Your task to perform on an android device: Search for Italian restaurants on Maps Image 0: 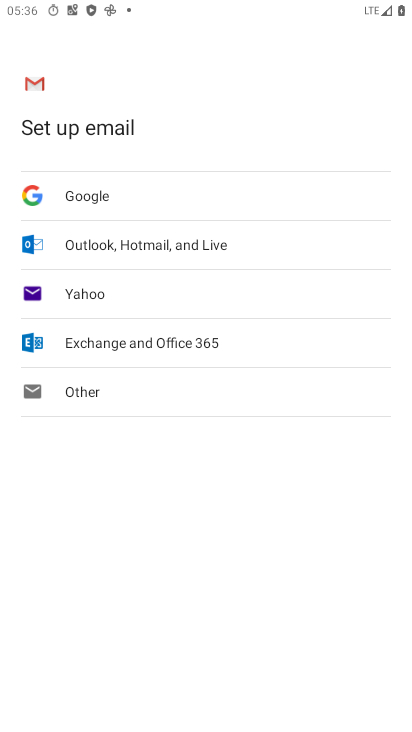
Step 0: press home button
Your task to perform on an android device: Search for Italian restaurants on Maps Image 1: 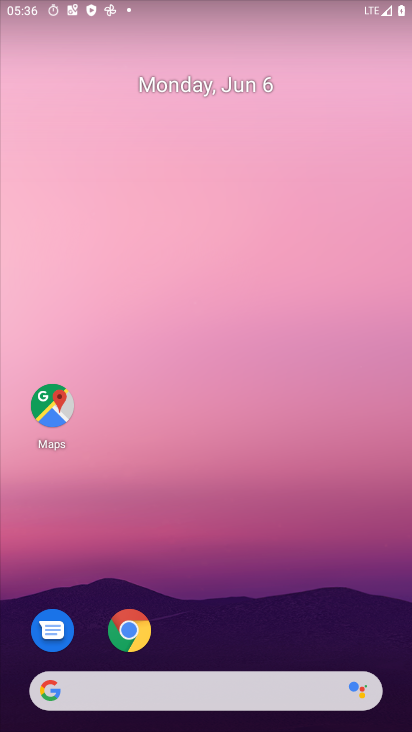
Step 1: click (55, 399)
Your task to perform on an android device: Search for Italian restaurants on Maps Image 2: 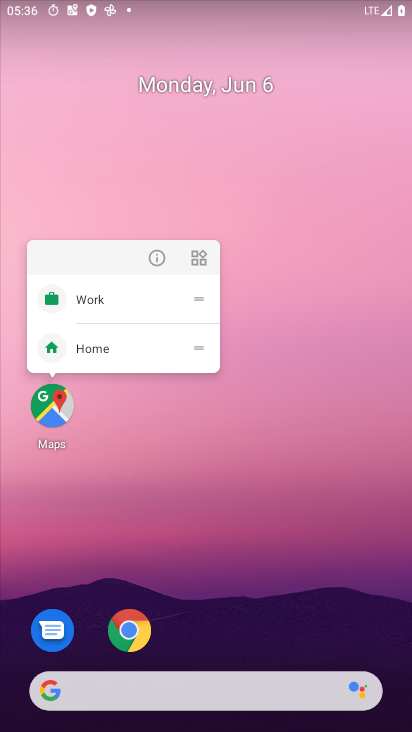
Step 2: click (307, 567)
Your task to perform on an android device: Search for Italian restaurants on Maps Image 3: 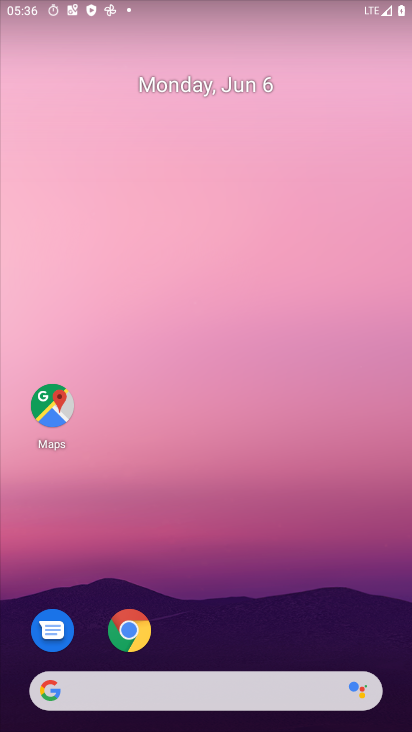
Step 3: drag from (327, 619) to (287, 23)
Your task to perform on an android device: Search for Italian restaurants on Maps Image 4: 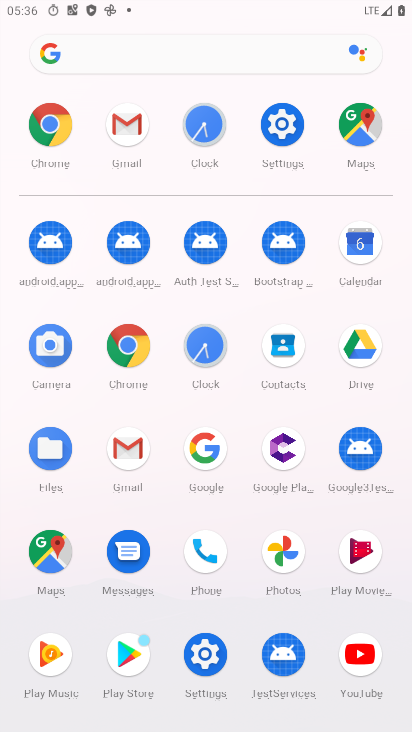
Step 4: click (56, 553)
Your task to perform on an android device: Search for Italian restaurants on Maps Image 5: 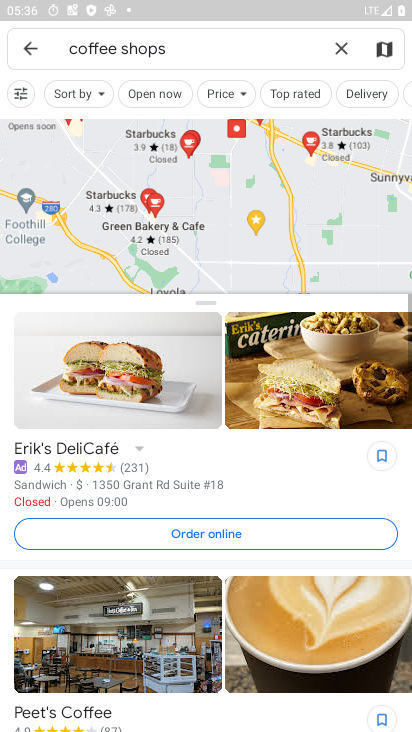
Step 5: click (338, 46)
Your task to perform on an android device: Search for Italian restaurants on Maps Image 6: 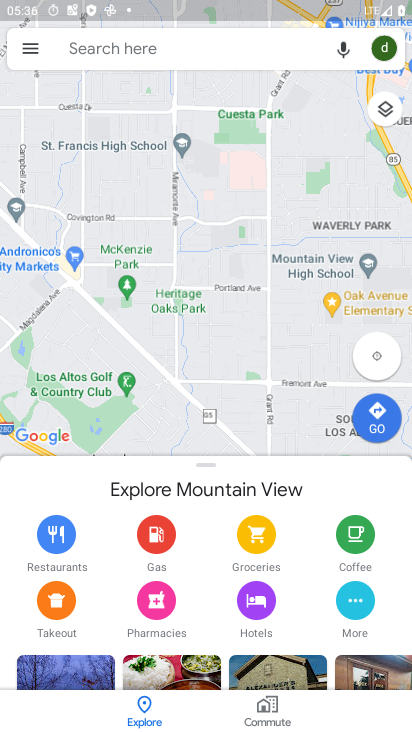
Step 6: click (105, 28)
Your task to perform on an android device: Search for Italian restaurants on Maps Image 7: 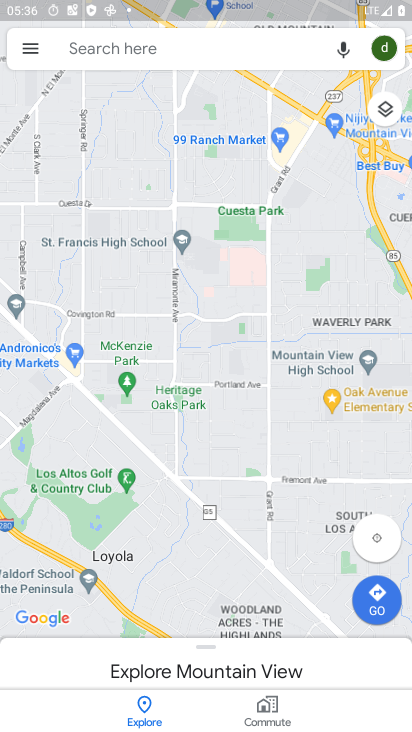
Step 7: click (105, 39)
Your task to perform on an android device: Search for Italian restaurants on Maps Image 8: 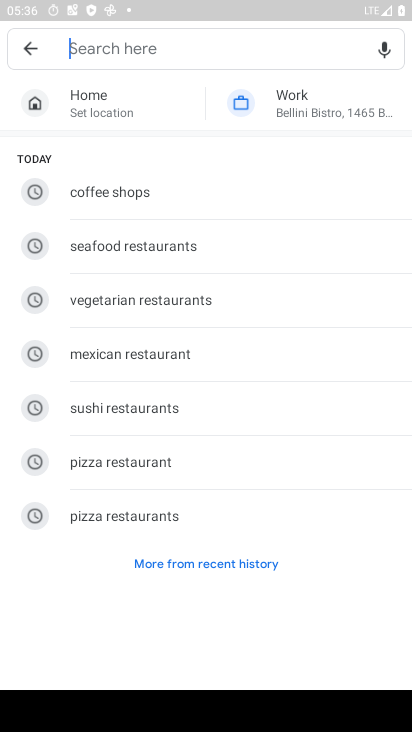
Step 8: type " Italian restaurants "
Your task to perform on an android device: Search for Italian restaurants on Maps Image 9: 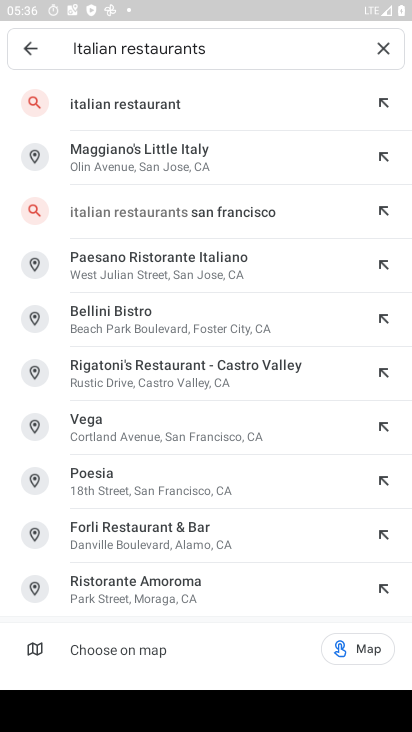
Step 9: click (174, 94)
Your task to perform on an android device: Search for Italian restaurants on Maps Image 10: 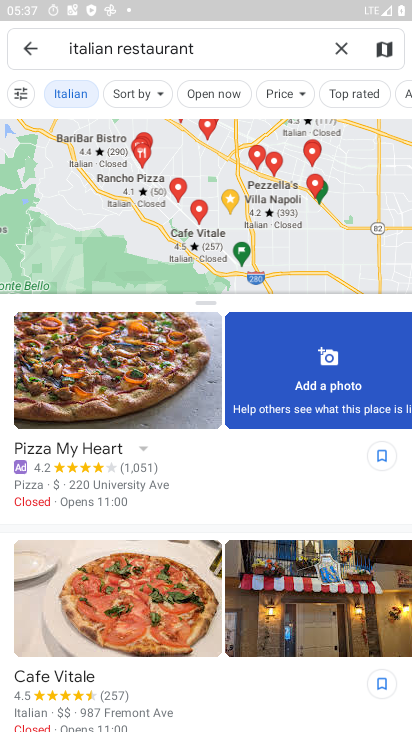
Step 10: task complete